Your task to perform on an android device: Open Wikipedia Image 0: 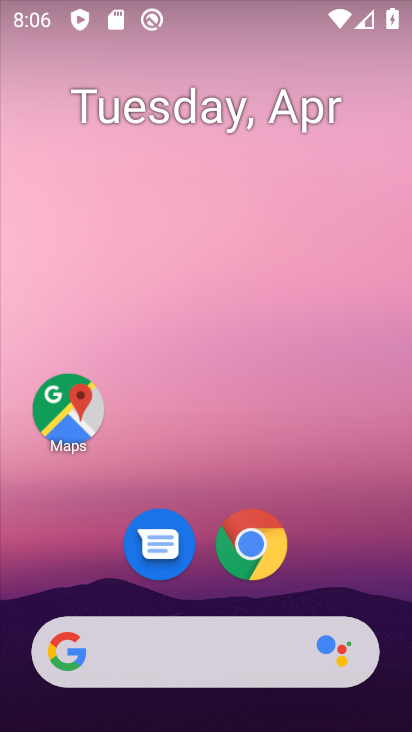
Step 0: drag from (188, 644) to (316, 161)
Your task to perform on an android device: Open Wikipedia Image 1: 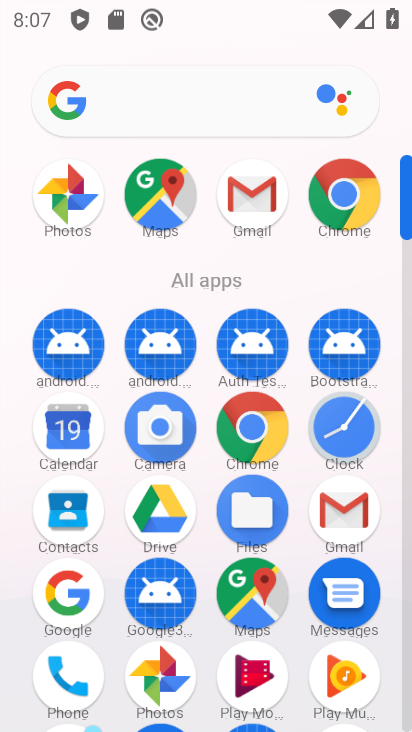
Step 1: click (343, 200)
Your task to perform on an android device: Open Wikipedia Image 2: 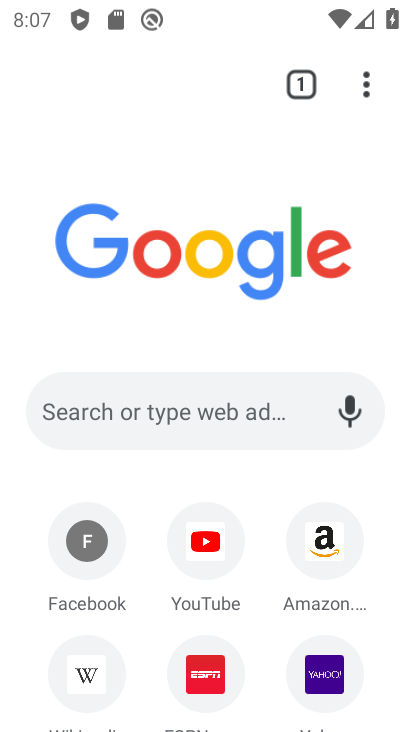
Step 2: drag from (158, 504) to (290, 177)
Your task to perform on an android device: Open Wikipedia Image 3: 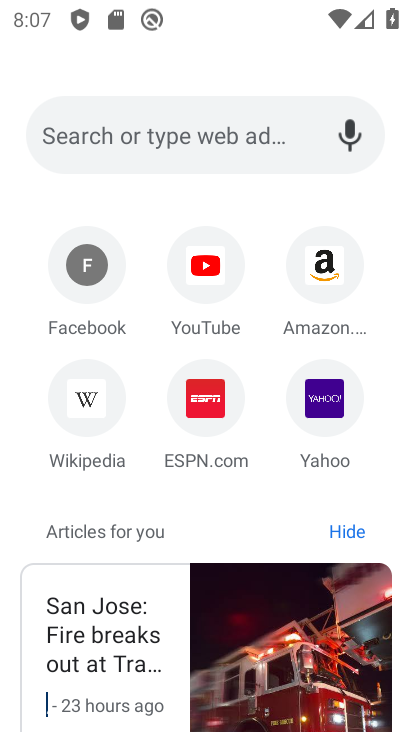
Step 3: click (84, 397)
Your task to perform on an android device: Open Wikipedia Image 4: 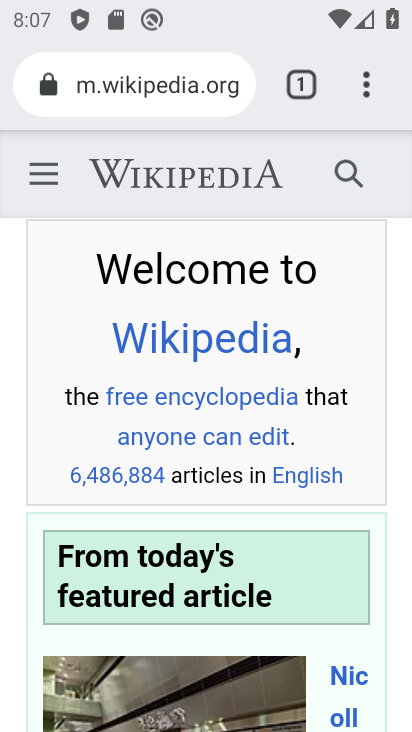
Step 4: task complete